Your task to perform on an android device: change notification settings in the gmail app Image 0: 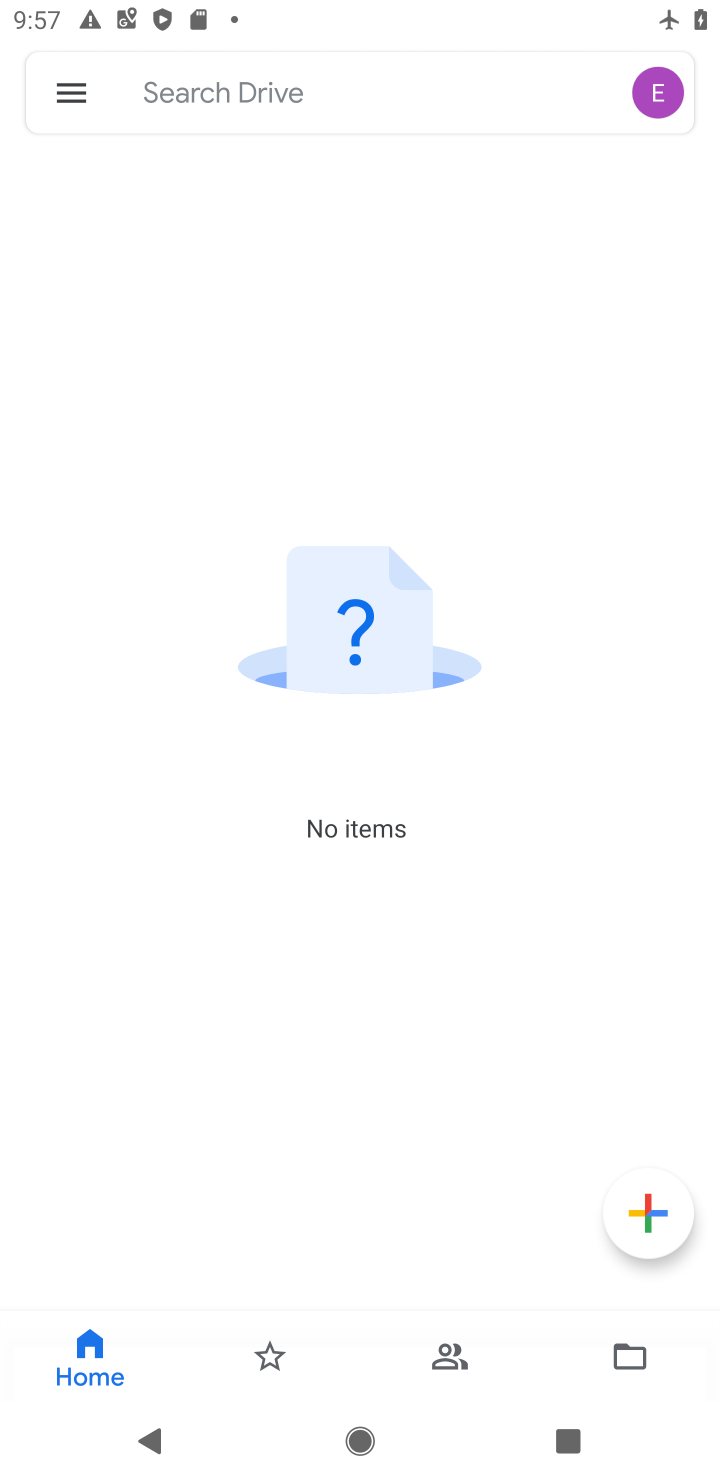
Step 0: press home button
Your task to perform on an android device: change notification settings in the gmail app Image 1: 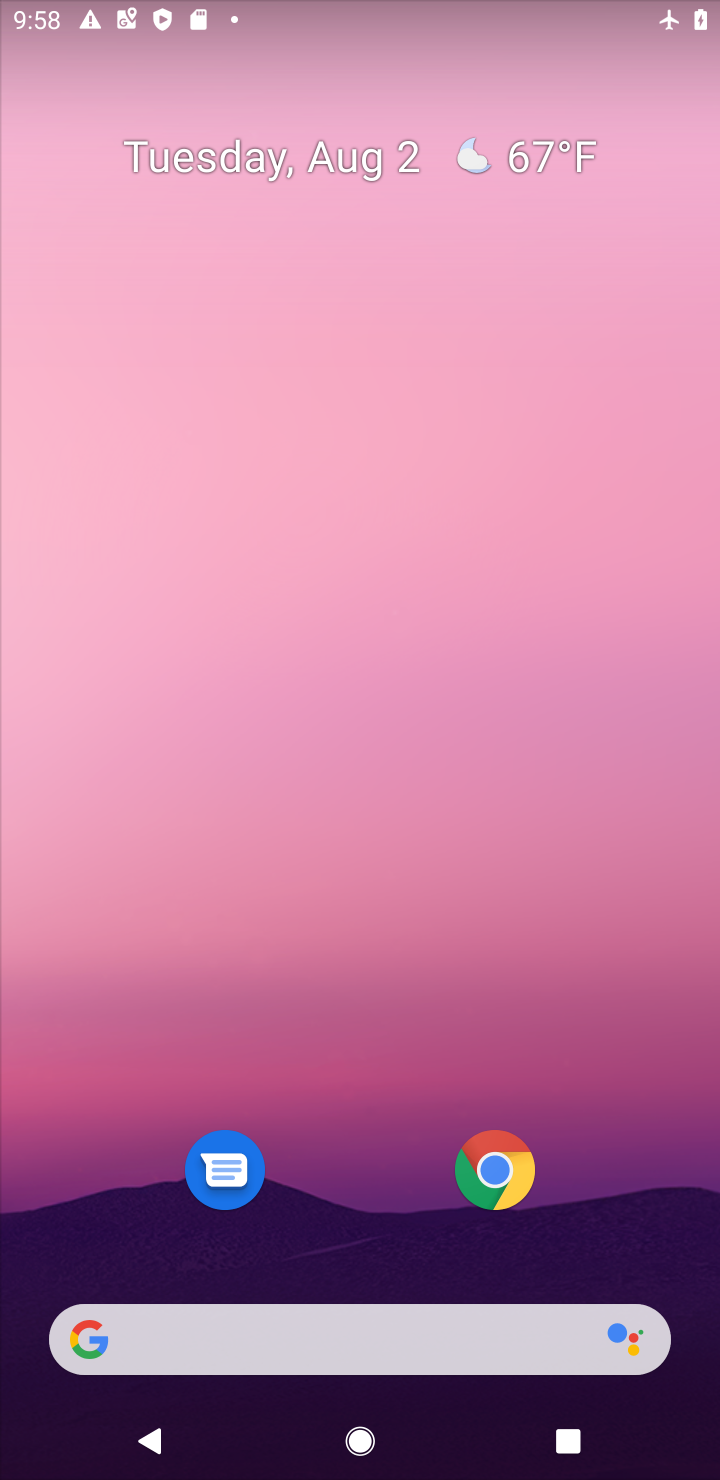
Step 1: drag from (320, 1090) to (387, 39)
Your task to perform on an android device: change notification settings in the gmail app Image 2: 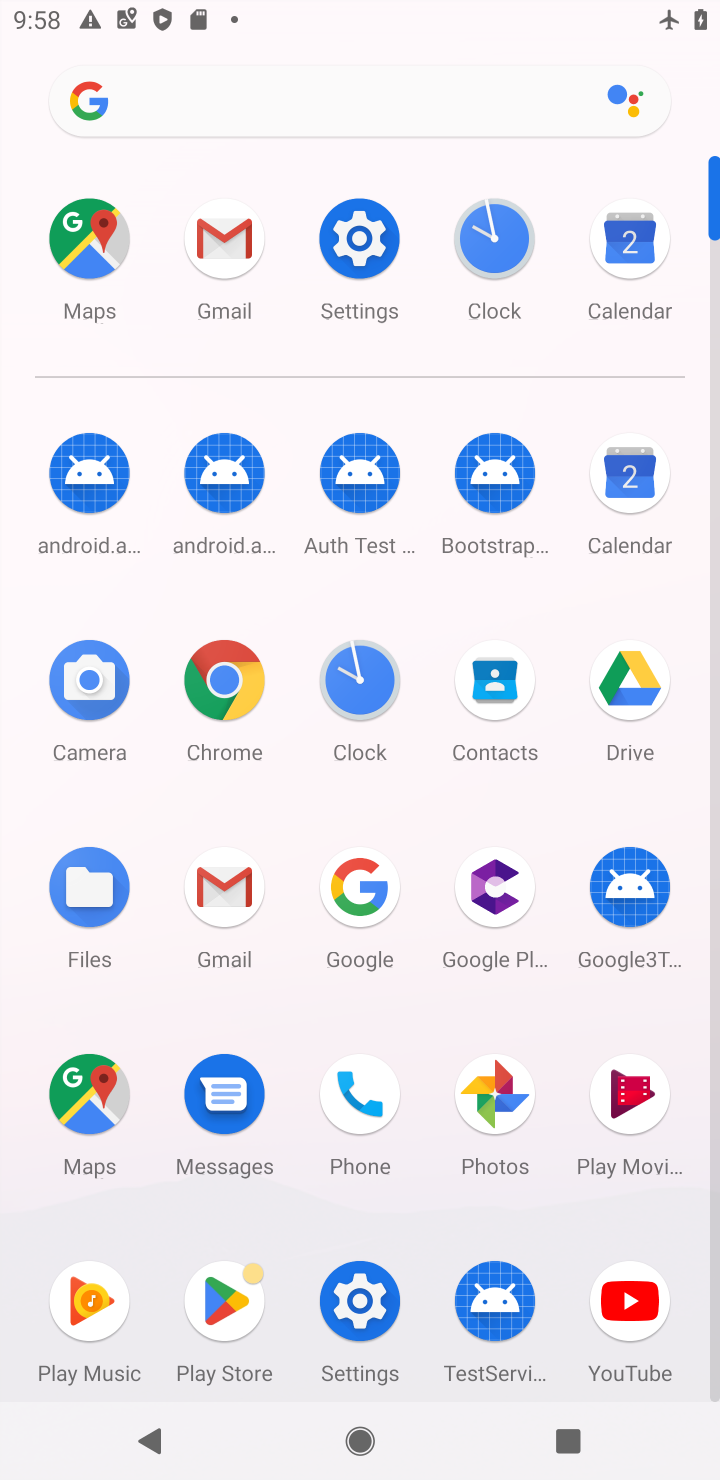
Step 2: click (211, 1098)
Your task to perform on an android device: change notification settings in the gmail app Image 3: 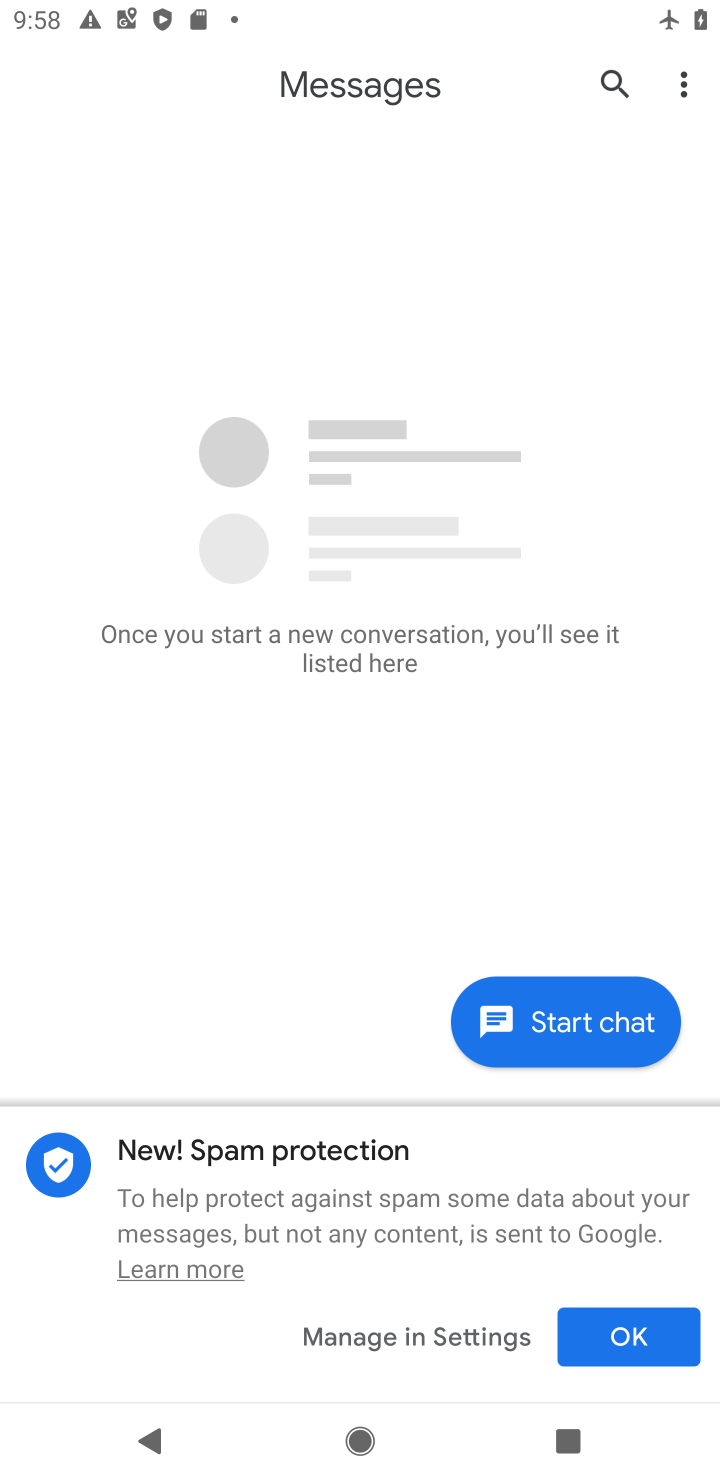
Step 3: press back button
Your task to perform on an android device: change notification settings in the gmail app Image 4: 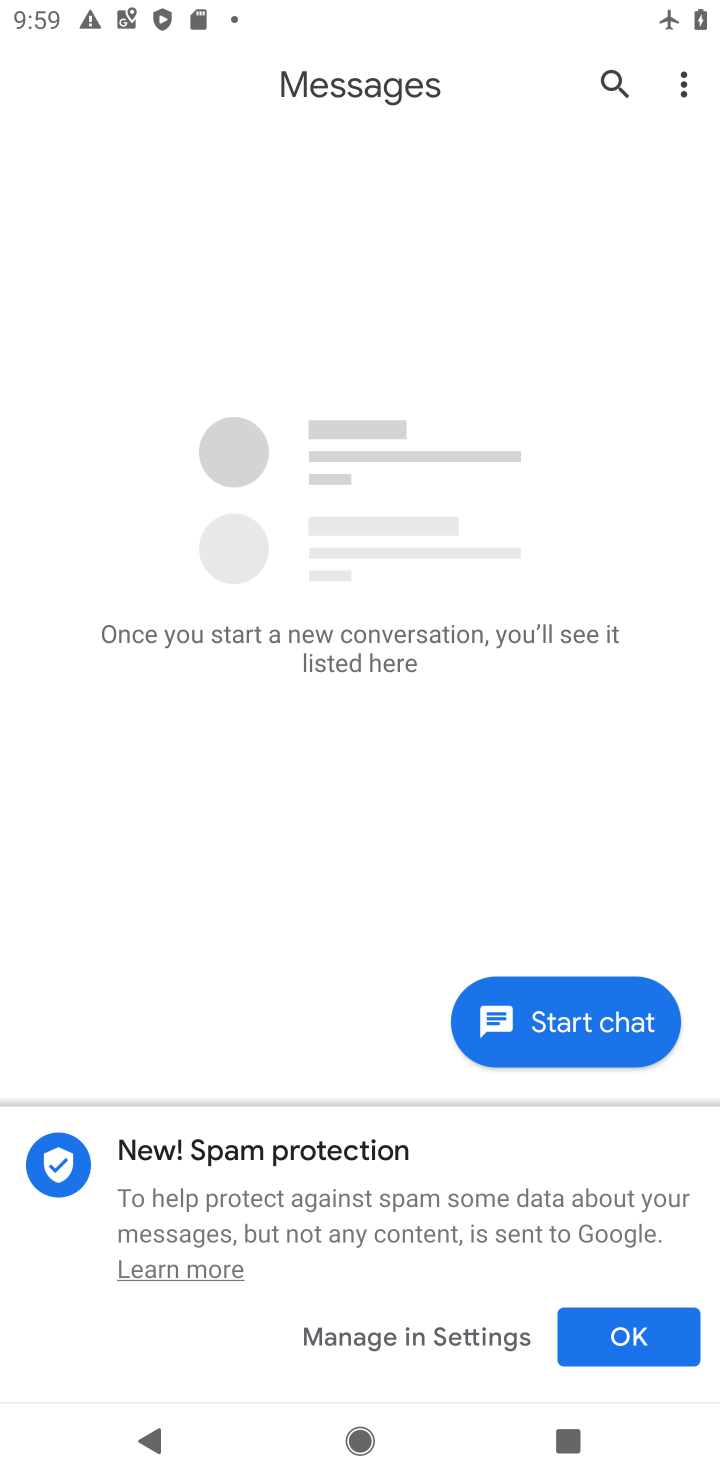
Step 4: press back button
Your task to perform on an android device: change notification settings in the gmail app Image 5: 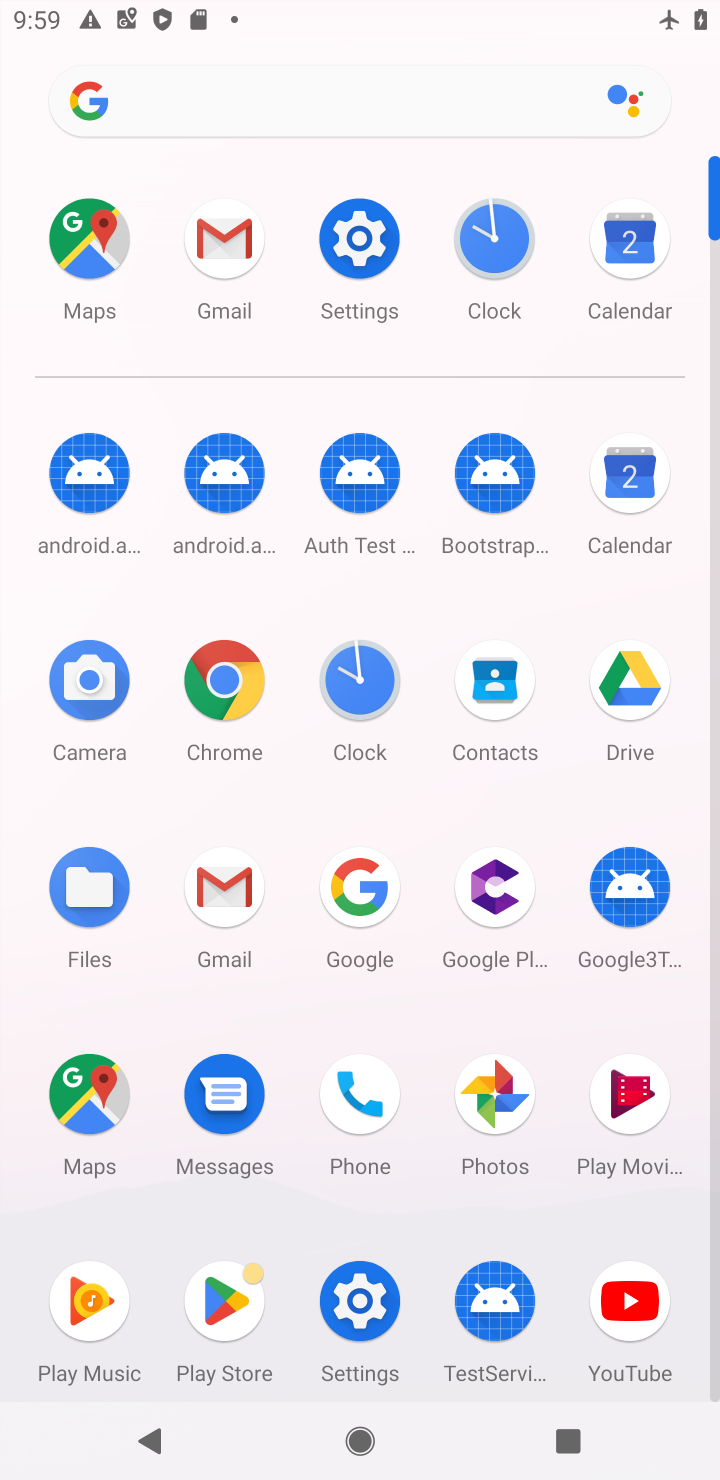
Step 5: click (356, 304)
Your task to perform on an android device: change notification settings in the gmail app Image 6: 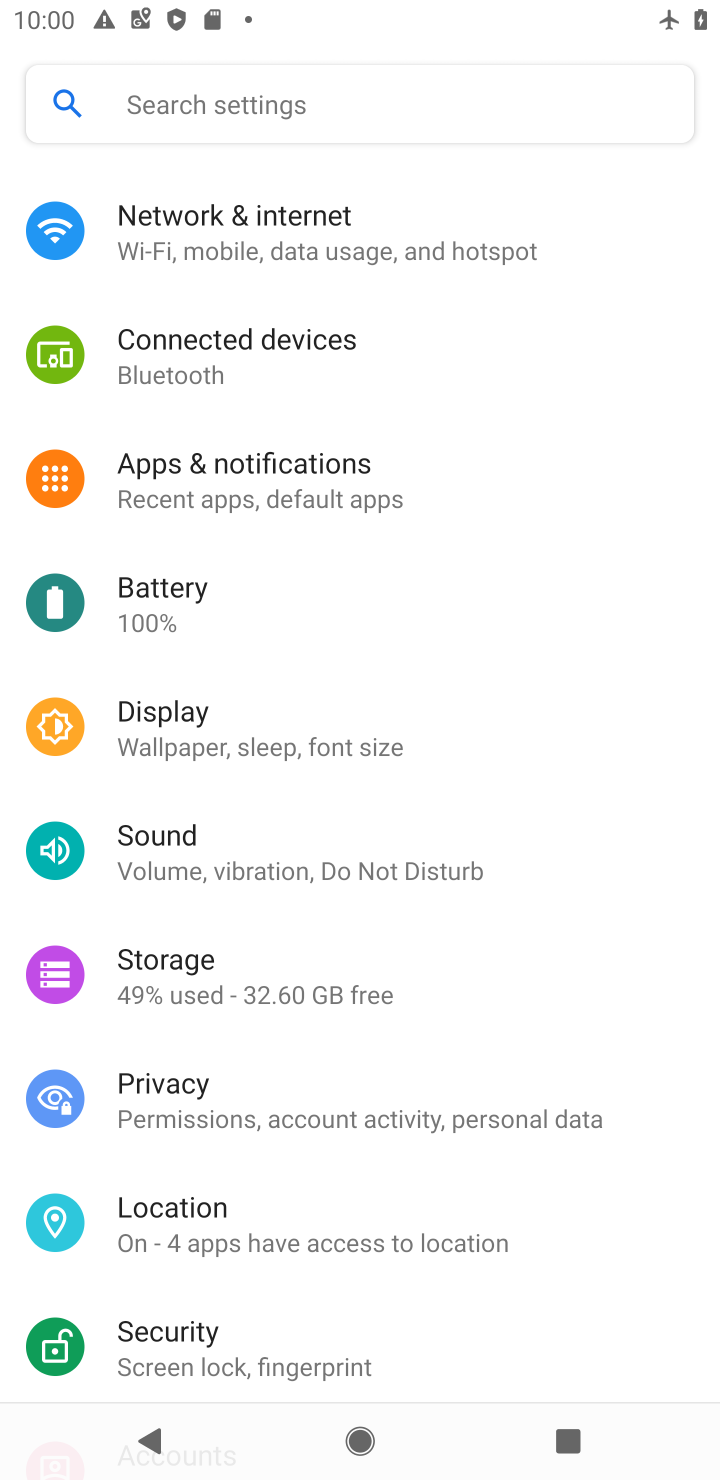
Step 6: press back button
Your task to perform on an android device: change notification settings in the gmail app Image 7: 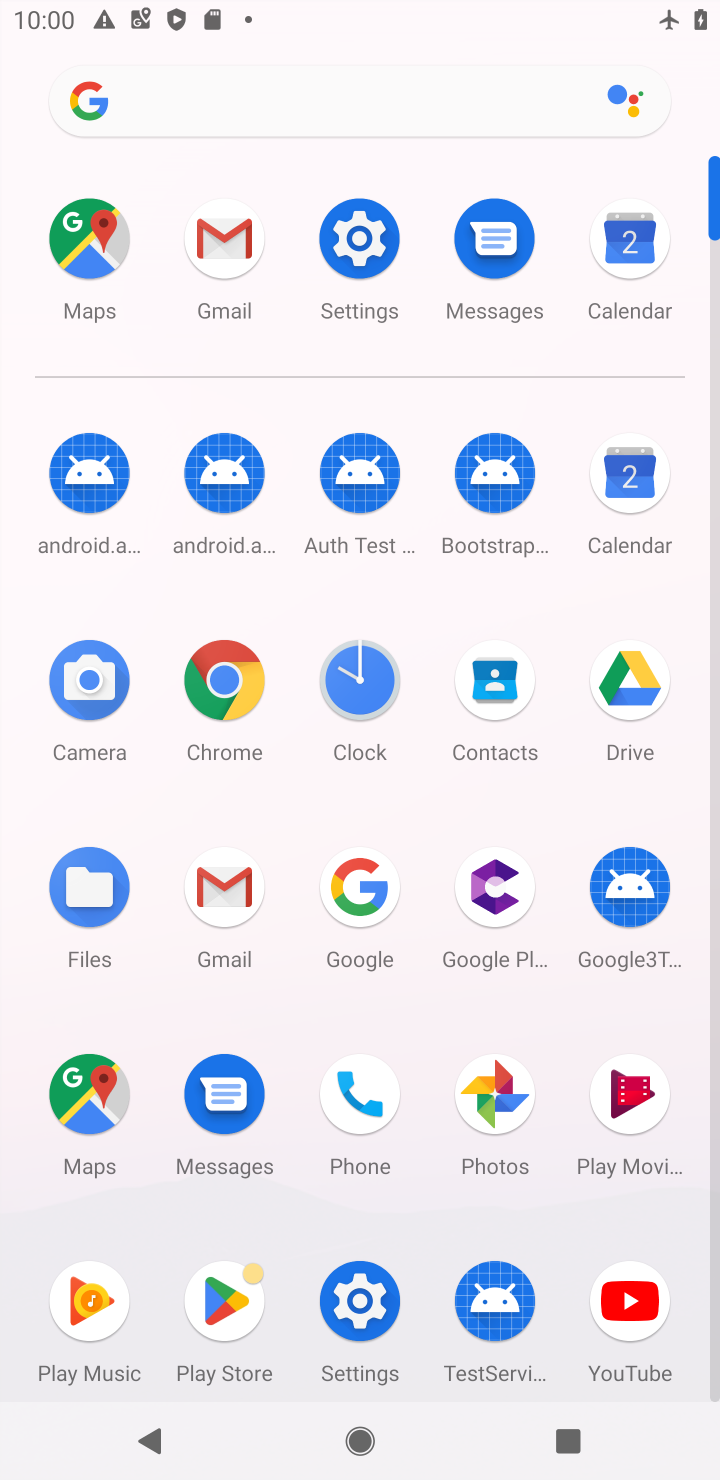
Step 7: click (222, 906)
Your task to perform on an android device: change notification settings in the gmail app Image 8: 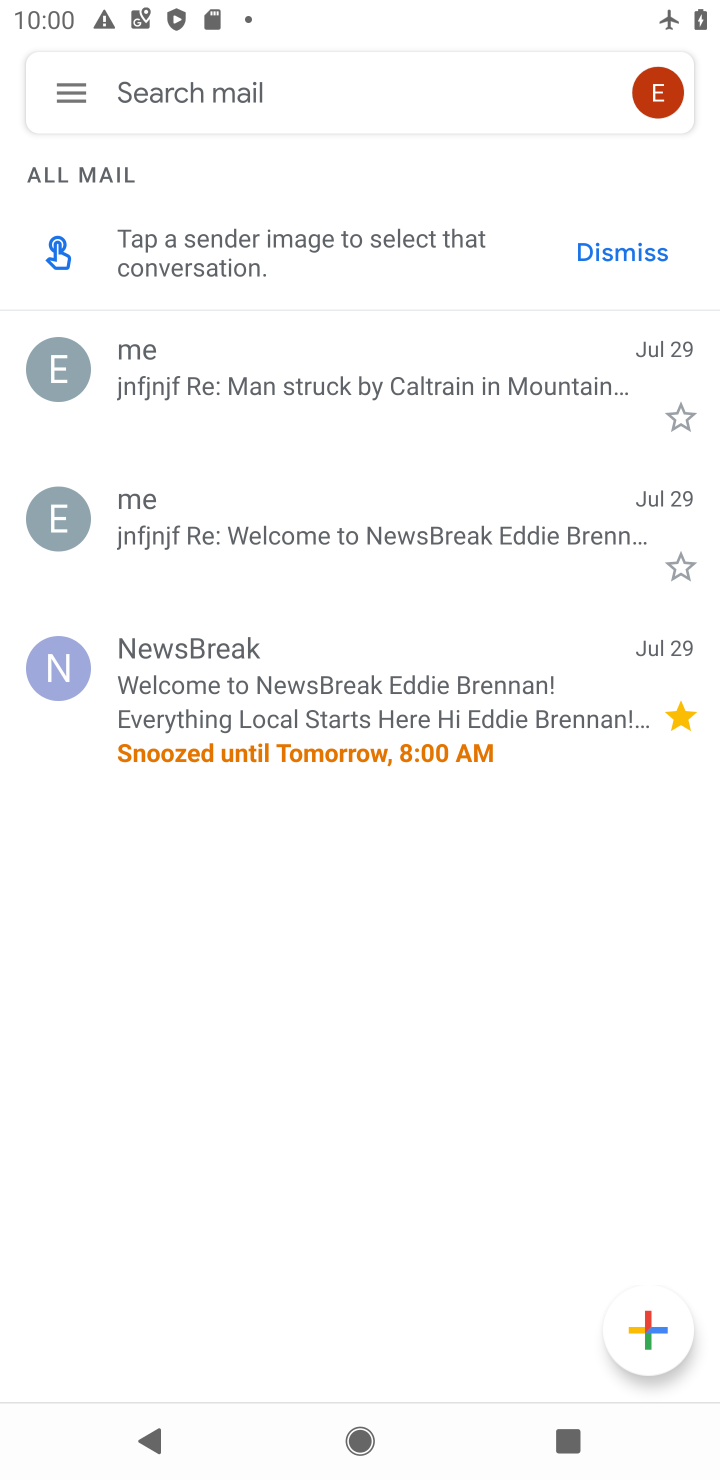
Step 8: click (65, 91)
Your task to perform on an android device: change notification settings in the gmail app Image 9: 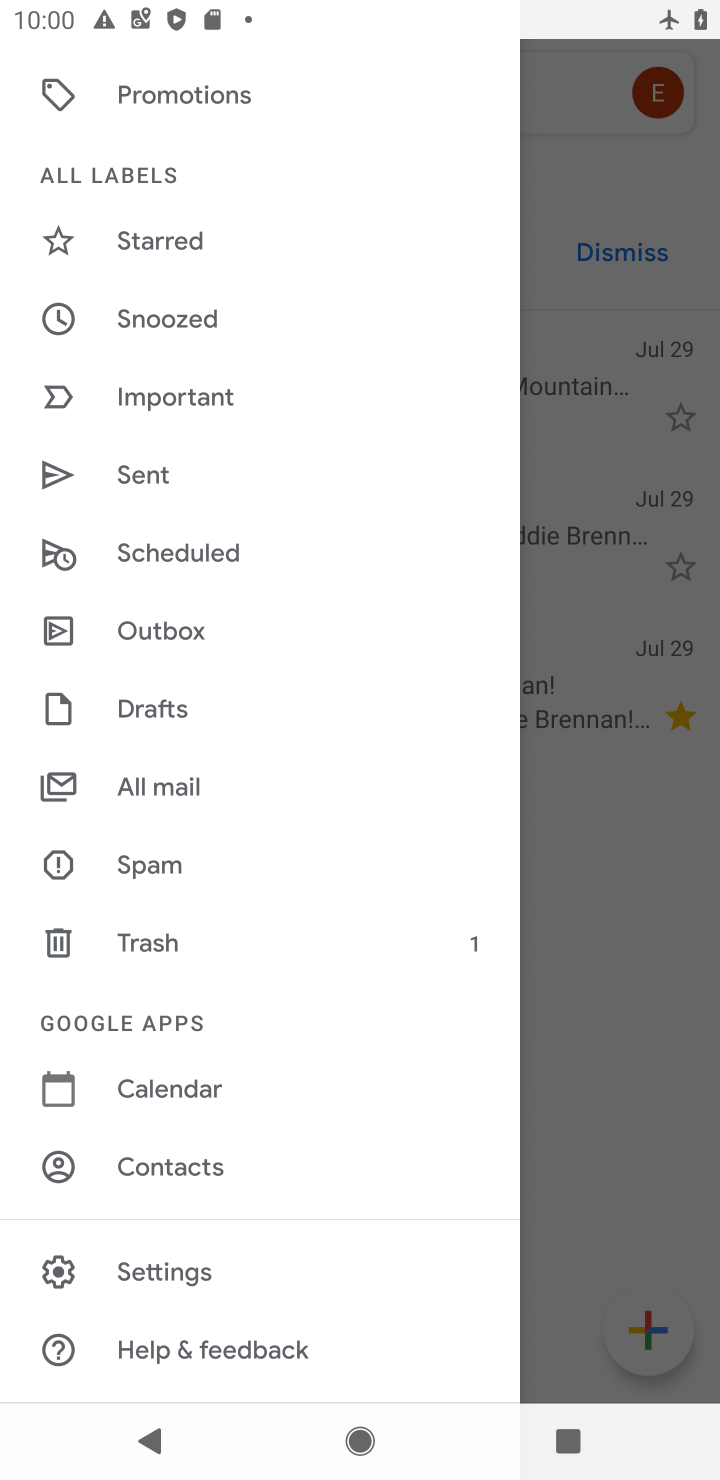
Step 9: click (138, 1266)
Your task to perform on an android device: change notification settings in the gmail app Image 10: 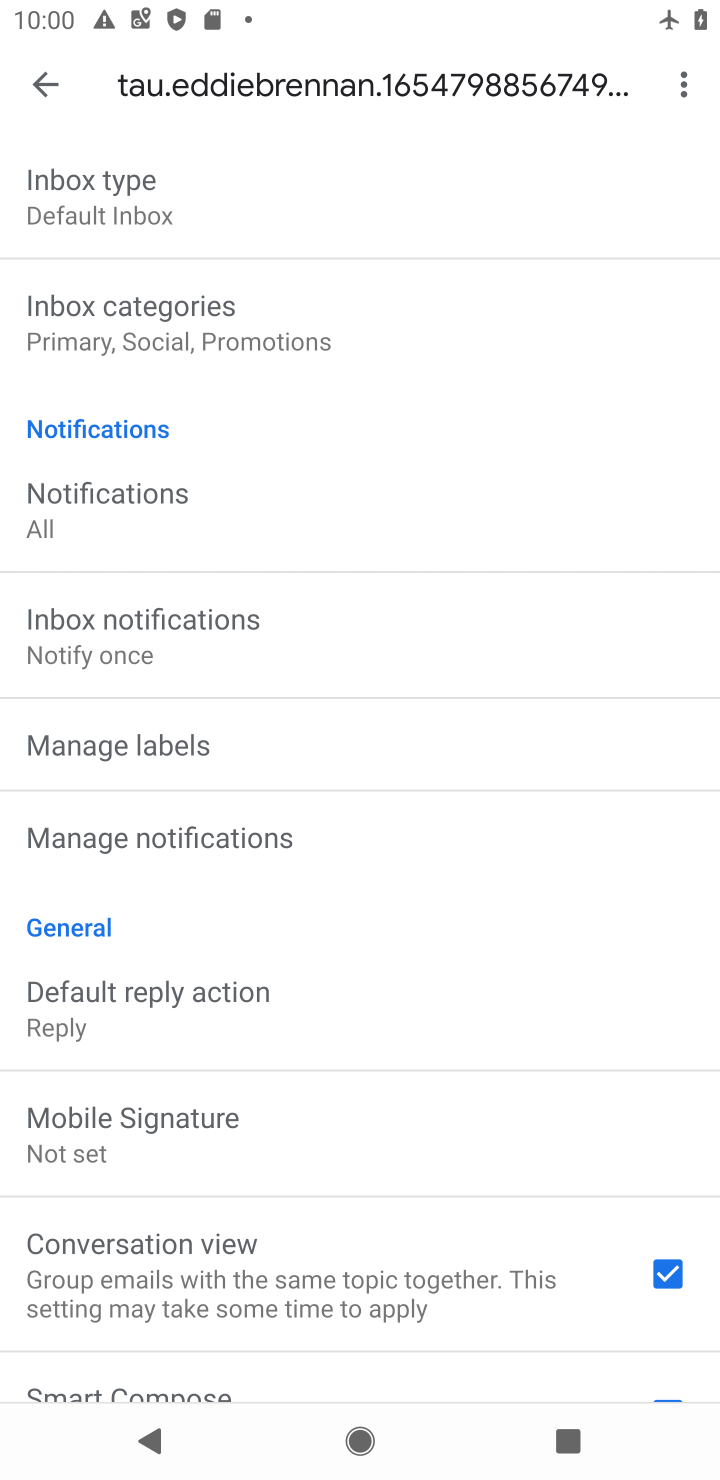
Step 10: drag from (16, 881) to (65, 517)
Your task to perform on an android device: change notification settings in the gmail app Image 11: 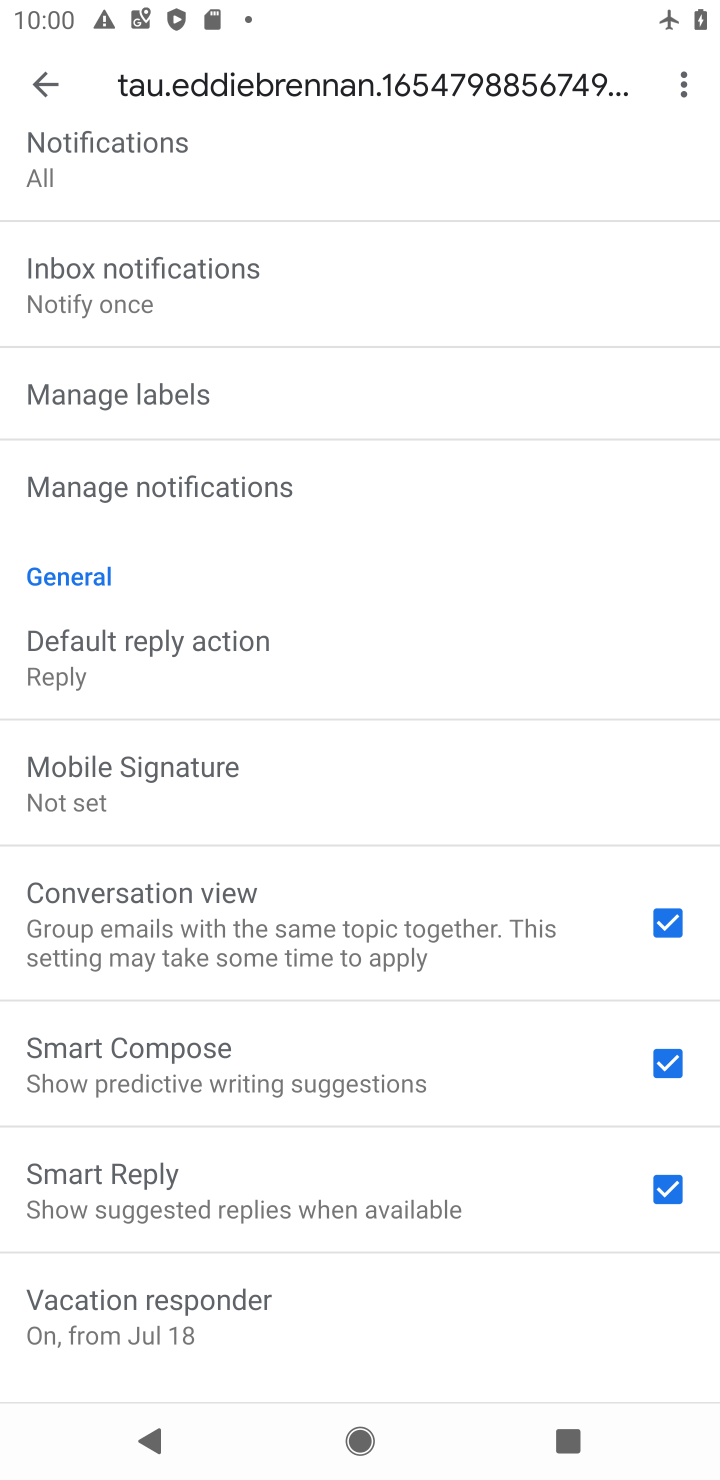
Step 11: click (199, 482)
Your task to perform on an android device: change notification settings in the gmail app Image 12: 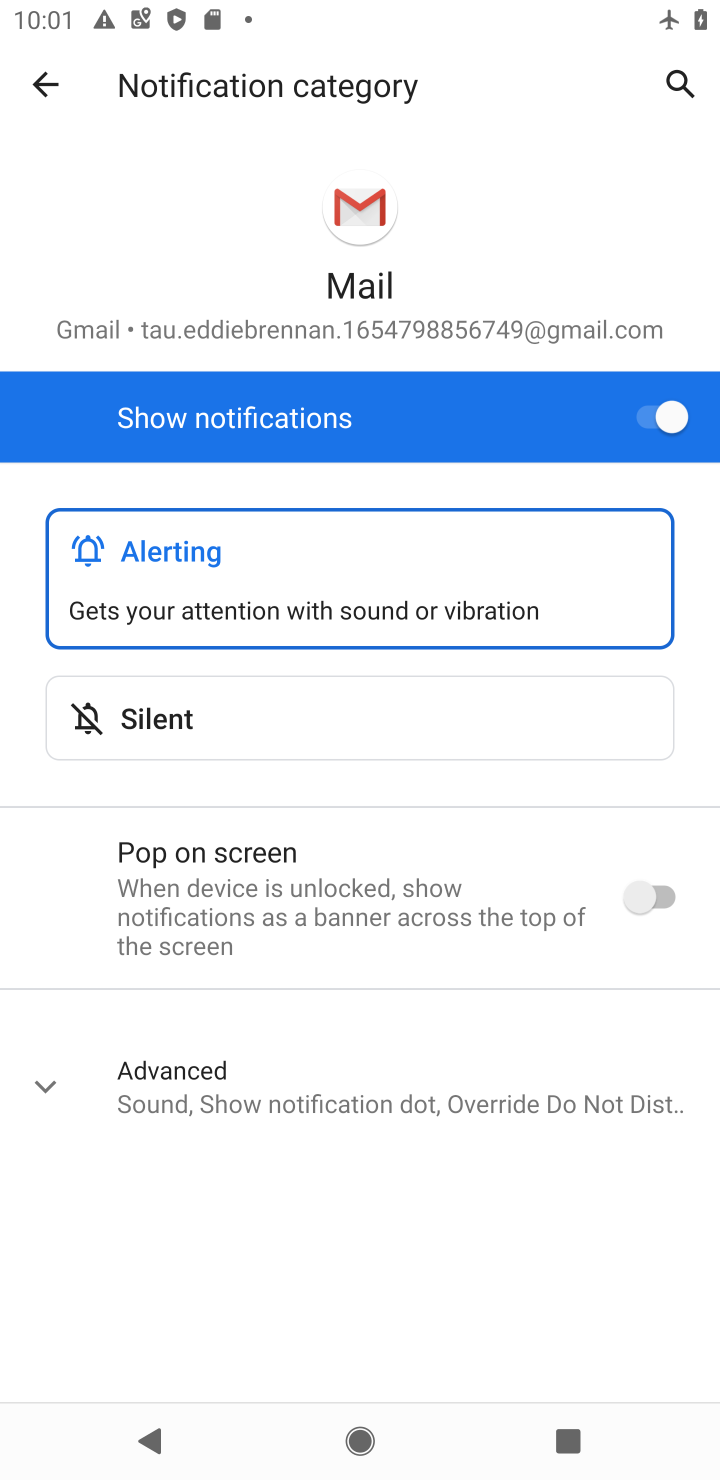
Step 12: click (644, 417)
Your task to perform on an android device: change notification settings in the gmail app Image 13: 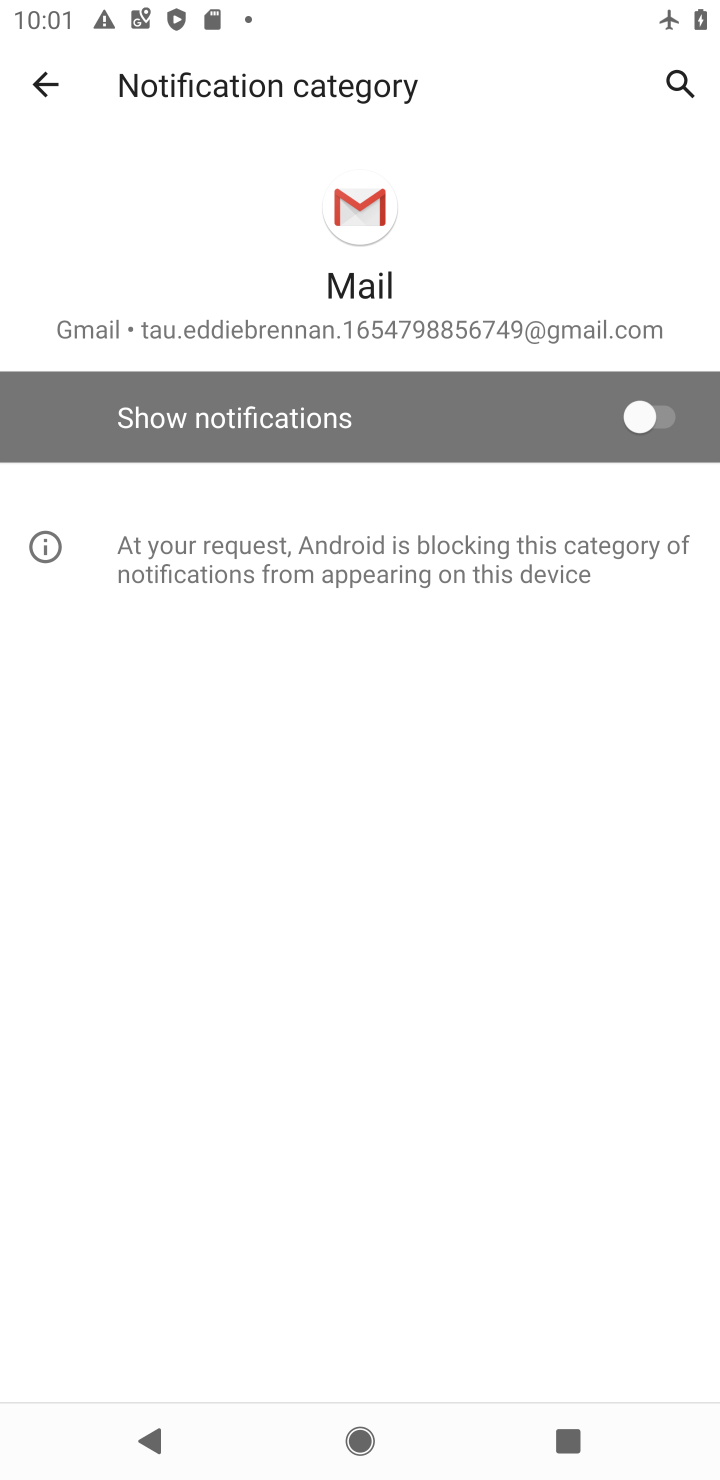
Step 13: task complete